Your task to perform on an android device: turn off translation in the chrome app Image 0: 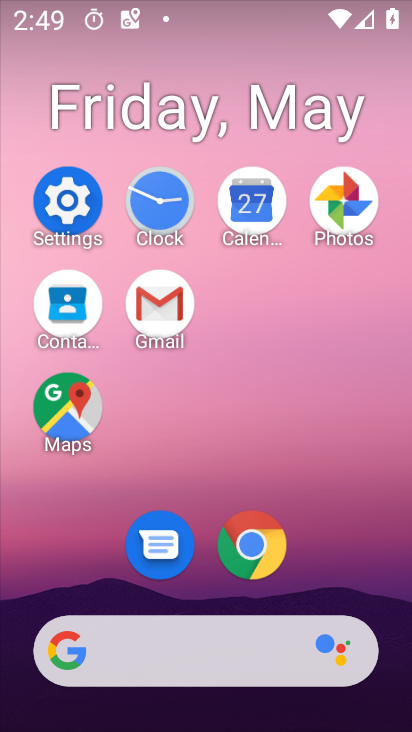
Step 0: click (249, 545)
Your task to perform on an android device: turn off translation in the chrome app Image 1: 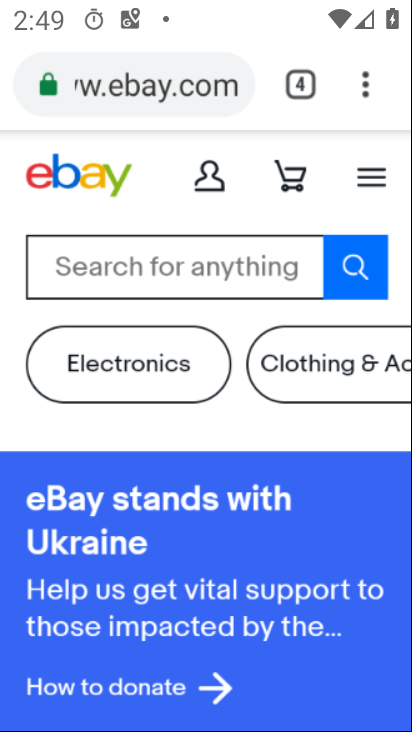
Step 1: click (376, 93)
Your task to perform on an android device: turn off translation in the chrome app Image 2: 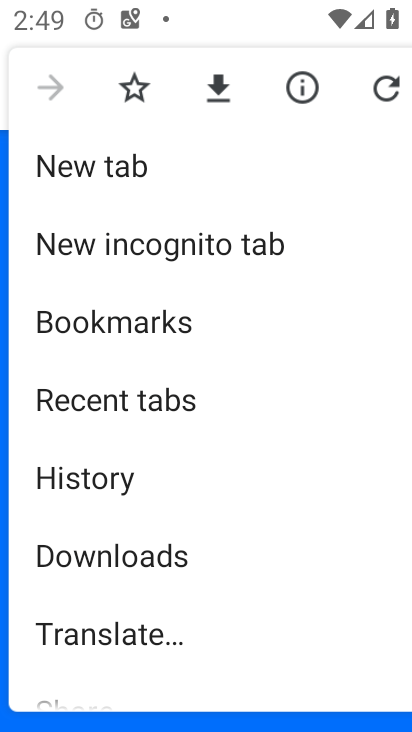
Step 2: drag from (255, 449) to (250, 1)
Your task to perform on an android device: turn off translation in the chrome app Image 3: 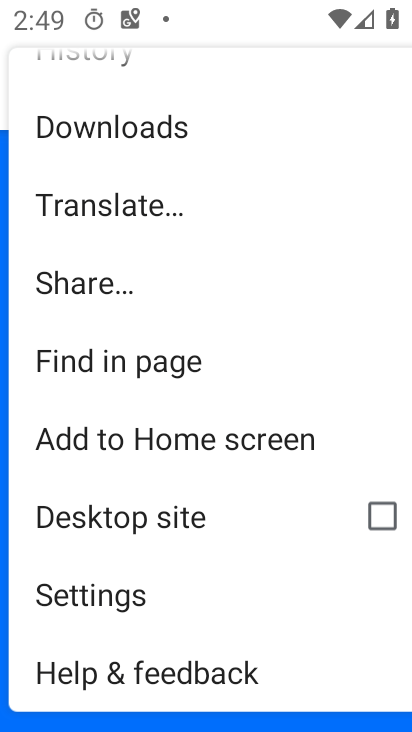
Step 3: click (152, 586)
Your task to perform on an android device: turn off translation in the chrome app Image 4: 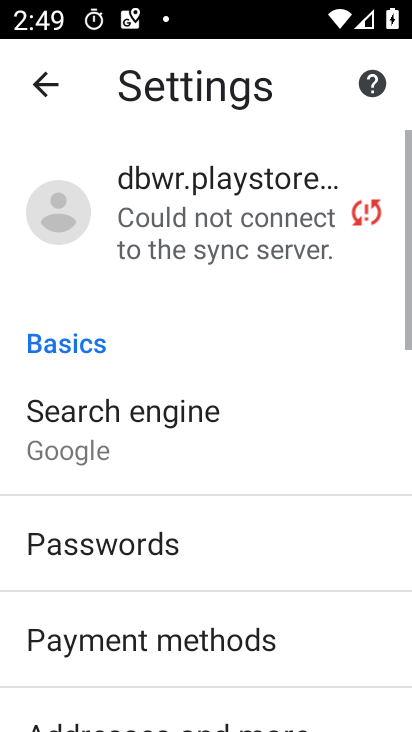
Step 4: drag from (152, 570) to (172, 73)
Your task to perform on an android device: turn off translation in the chrome app Image 5: 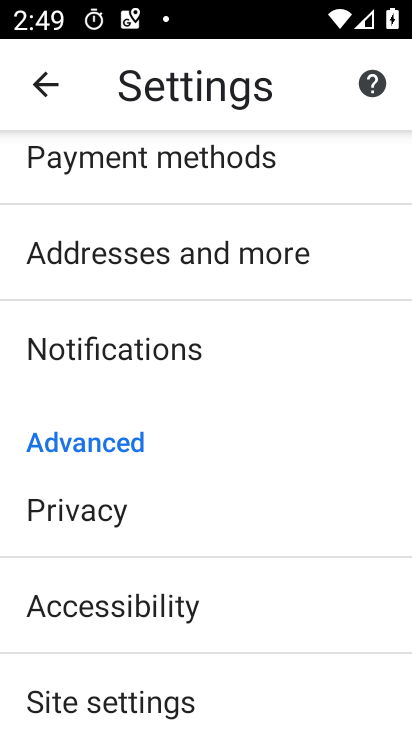
Step 5: drag from (165, 567) to (192, 109)
Your task to perform on an android device: turn off translation in the chrome app Image 6: 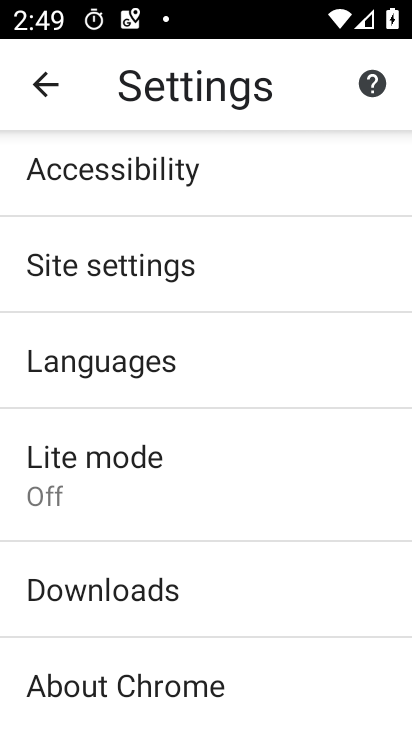
Step 6: click (162, 363)
Your task to perform on an android device: turn off translation in the chrome app Image 7: 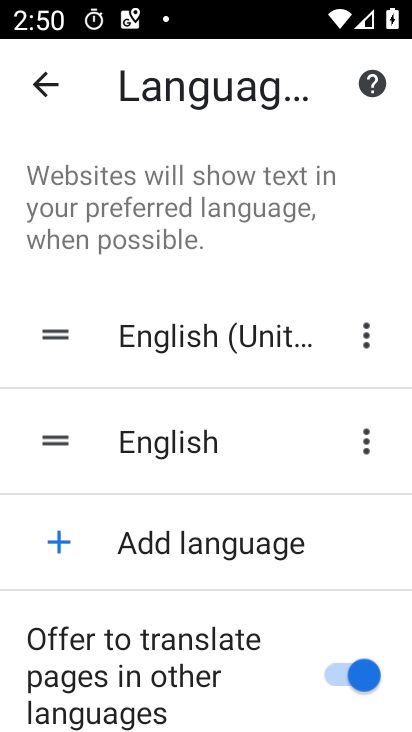
Step 7: click (369, 684)
Your task to perform on an android device: turn off translation in the chrome app Image 8: 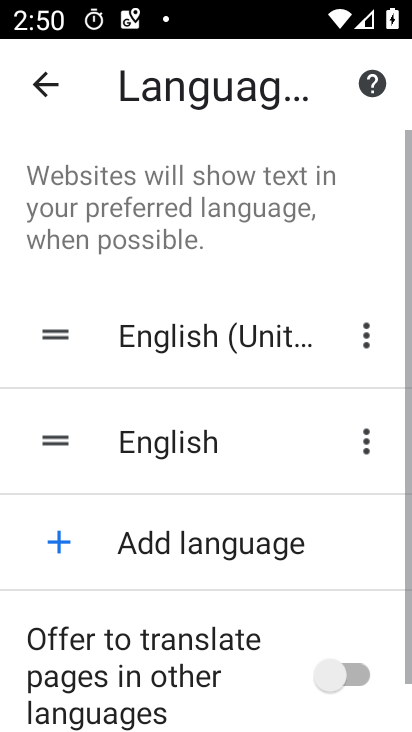
Step 8: task complete